Your task to perform on an android device: turn pop-ups off in chrome Image 0: 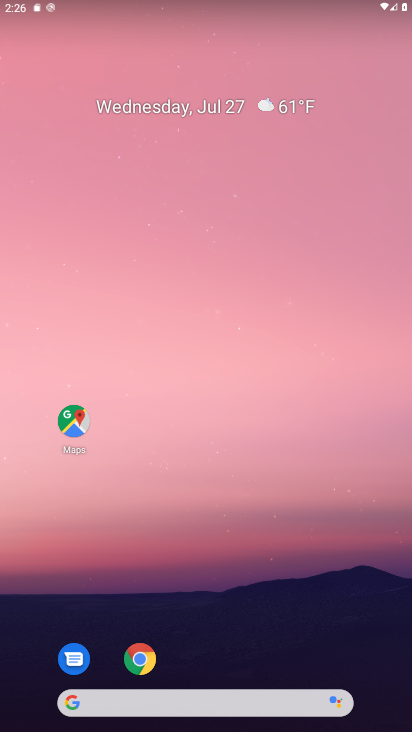
Step 0: click (133, 640)
Your task to perform on an android device: turn pop-ups off in chrome Image 1: 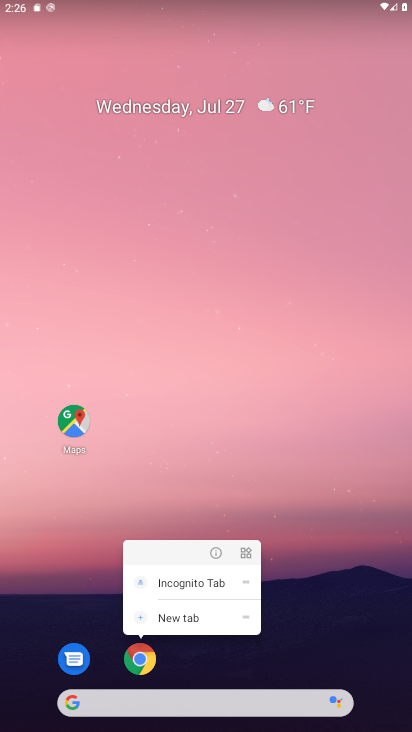
Step 1: drag from (228, 523) to (193, 286)
Your task to perform on an android device: turn pop-ups off in chrome Image 2: 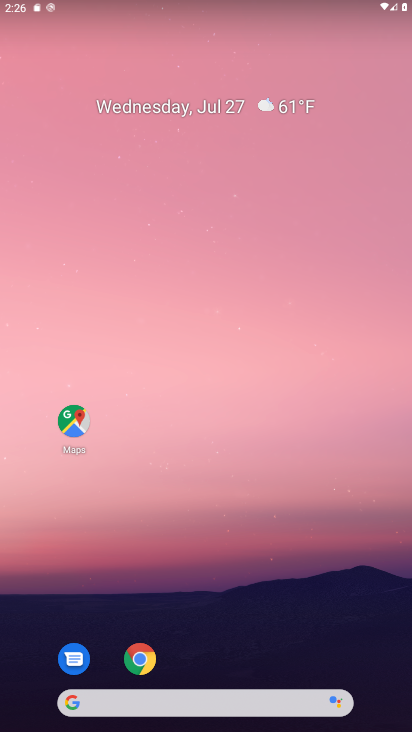
Step 2: click (193, 286)
Your task to perform on an android device: turn pop-ups off in chrome Image 3: 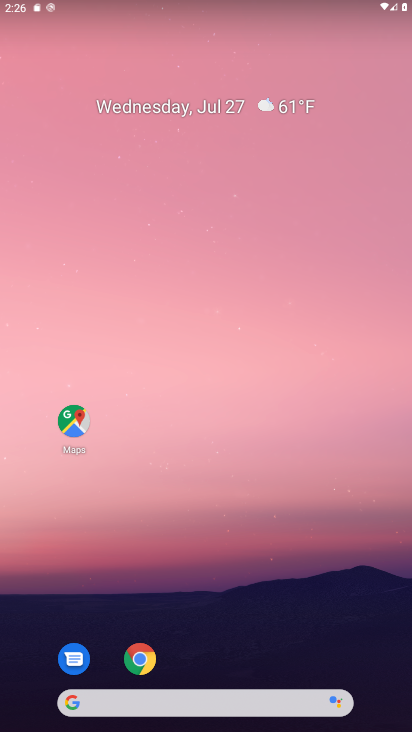
Step 3: click (133, 657)
Your task to perform on an android device: turn pop-ups off in chrome Image 4: 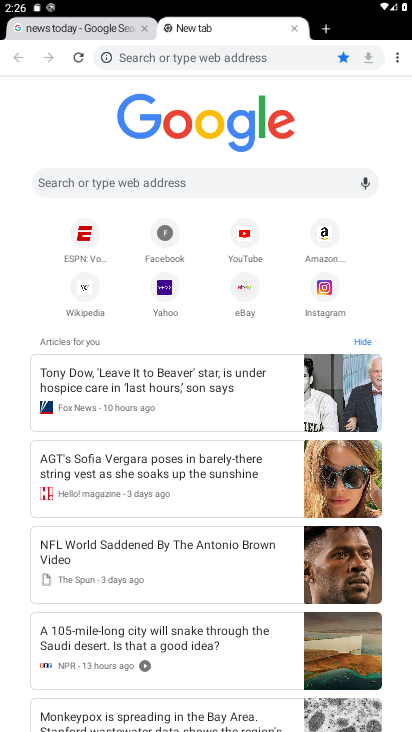
Step 4: drag from (399, 54) to (282, 273)
Your task to perform on an android device: turn pop-ups off in chrome Image 5: 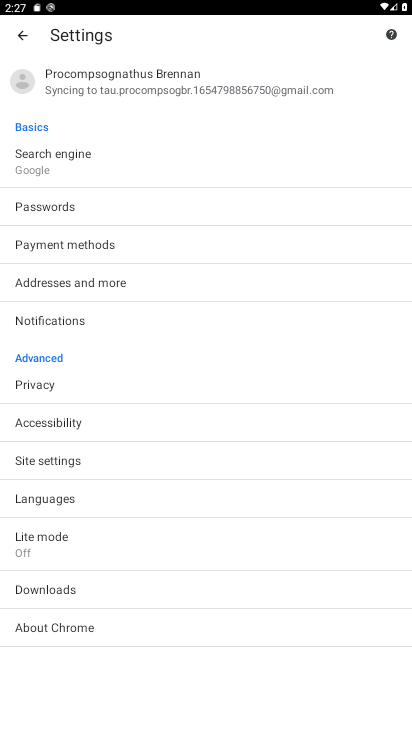
Step 5: click (116, 459)
Your task to perform on an android device: turn pop-ups off in chrome Image 6: 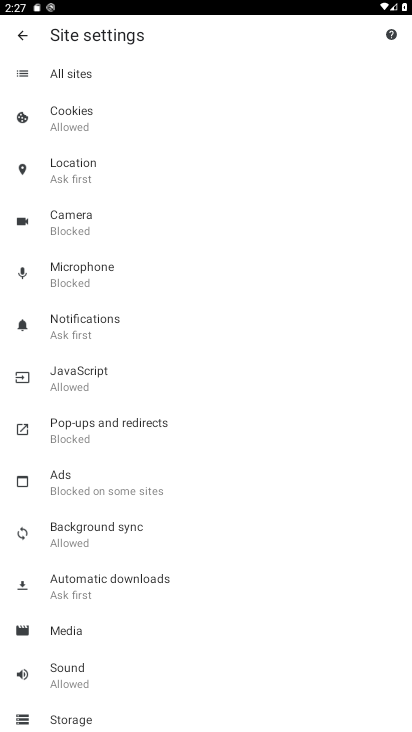
Step 6: click (107, 428)
Your task to perform on an android device: turn pop-ups off in chrome Image 7: 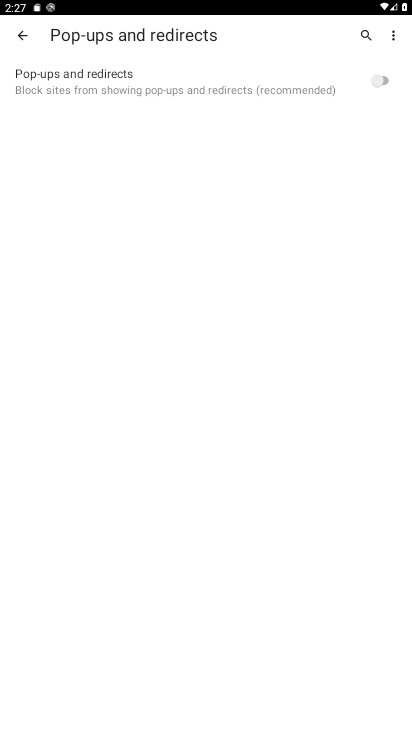
Step 7: task complete